Your task to perform on an android device: open a new tab in the chrome app Image 0: 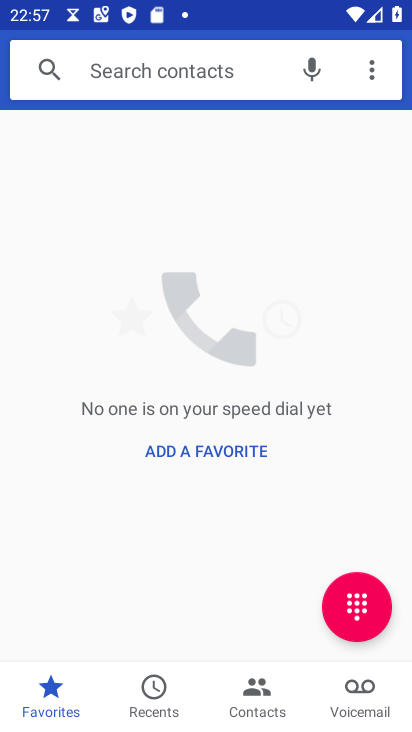
Step 0: press back button
Your task to perform on an android device: open a new tab in the chrome app Image 1: 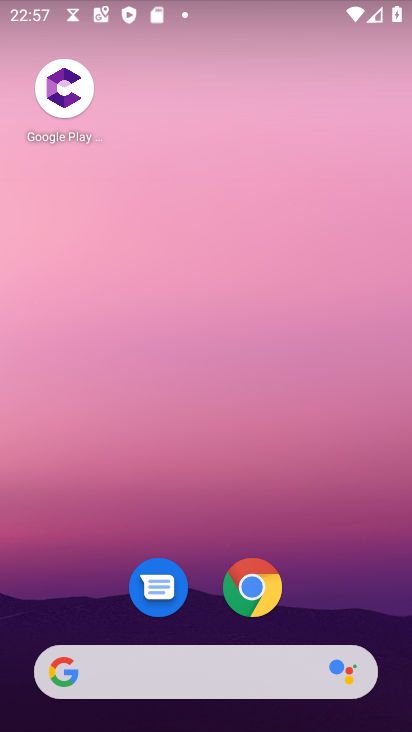
Step 1: drag from (319, 564) to (219, 32)
Your task to perform on an android device: open a new tab in the chrome app Image 2: 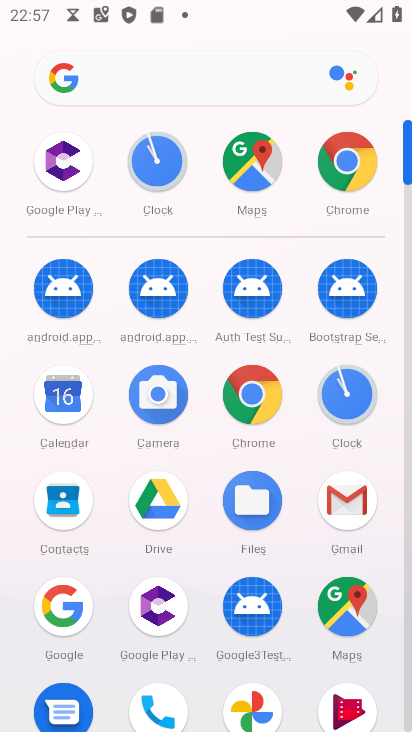
Step 2: click (254, 391)
Your task to perform on an android device: open a new tab in the chrome app Image 3: 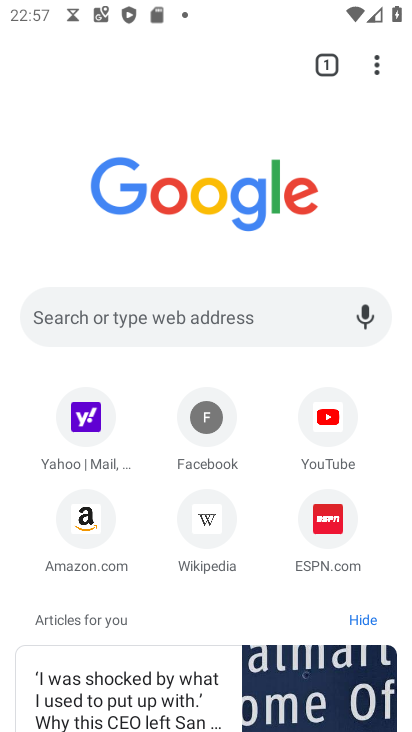
Step 3: task complete